Your task to perform on an android device: Open sound settings Image 0: 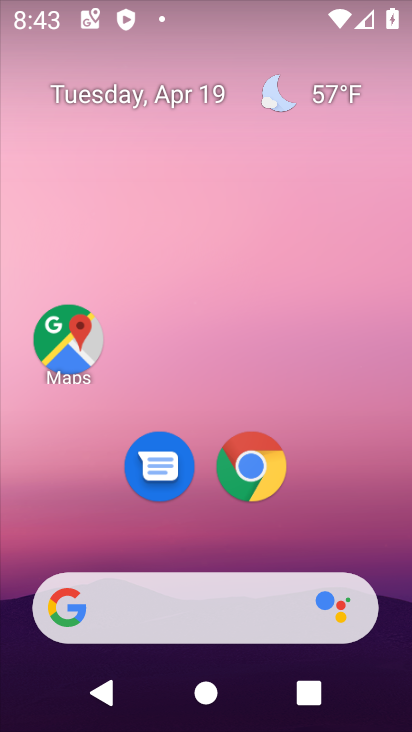
Step 0: drag from (208, 721) to (212, 19)
Your task to perform on an android device: Open sound settings Image 1: 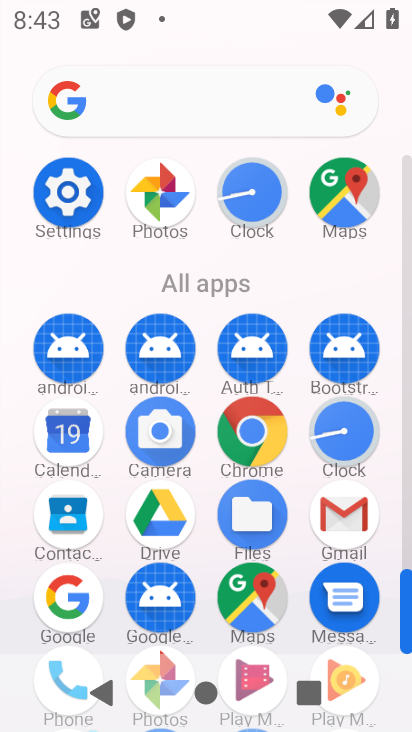
Step 1: click (66, 195)
Your task to perform on an android device: Open sound settings Image 2: 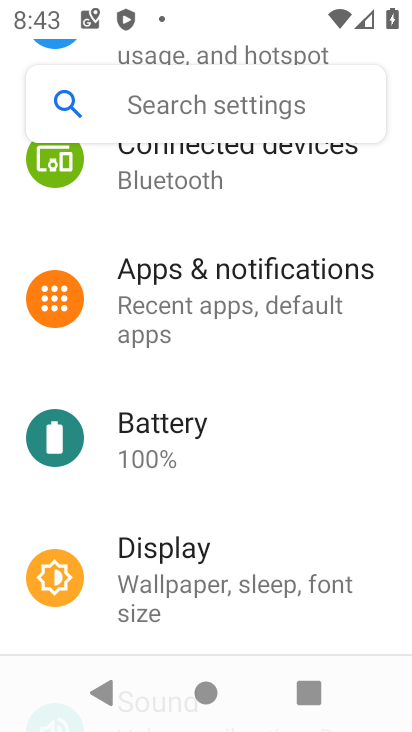
Step 2: drag from (259, 558) to (230, 257)
Your task to perform on an android device: Open sound settings Image 3: 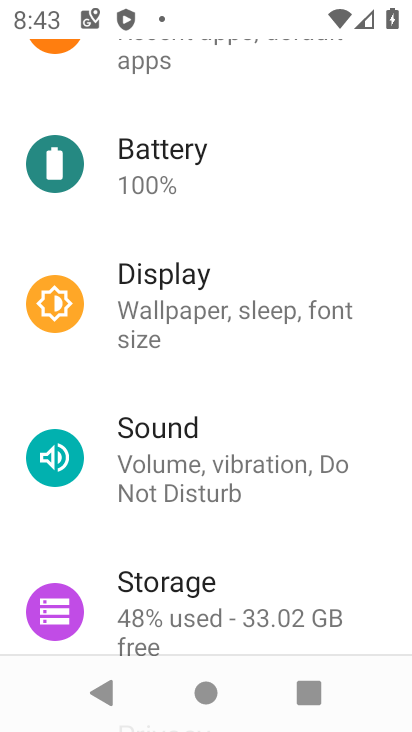
Step 3: click (167, 472)
Your task to perform on an android device: Open sound settings Image 4: 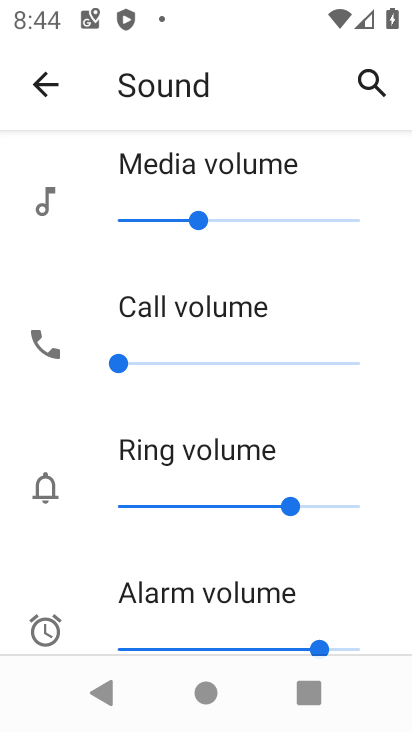
Step 4: task complete